Your task to perform on an android device: Open Chrome and go to the settings page Image 0: 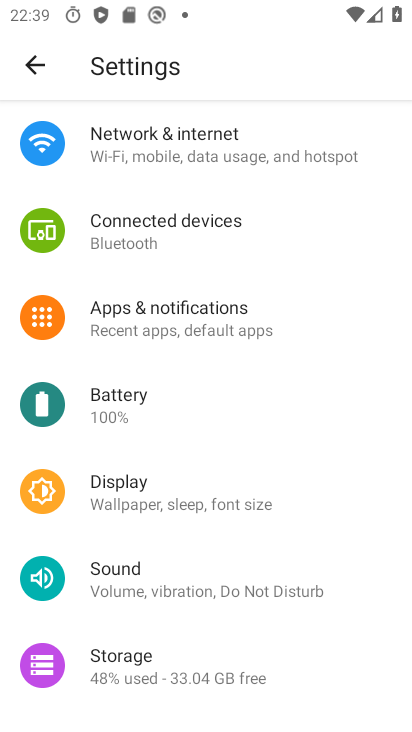
Step 0: press home button
Your task to perform on an android device: Open Chrome and go to the settings page Image 1: 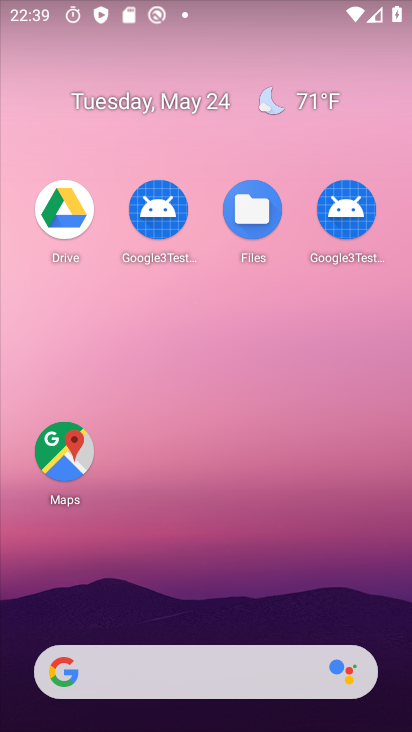
Step 1: click (198, 611)
Your task to perform on an android device: Open Chrome and go to the settings page Image 2: 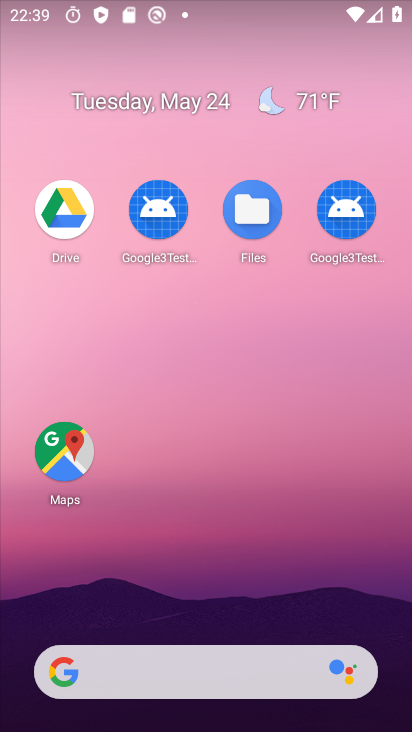
Step 2: drag from (198, 611) to (192, 0)
Your task to perform on an android device: Open Chrome and go to the settings page Image 3: 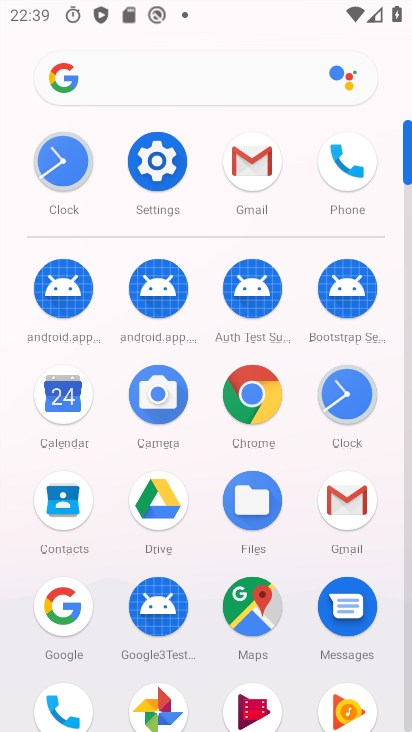
Step 3: click (261, 422)
Your task to perform on an android device: Open Chrome and go to the settings page Image 4: 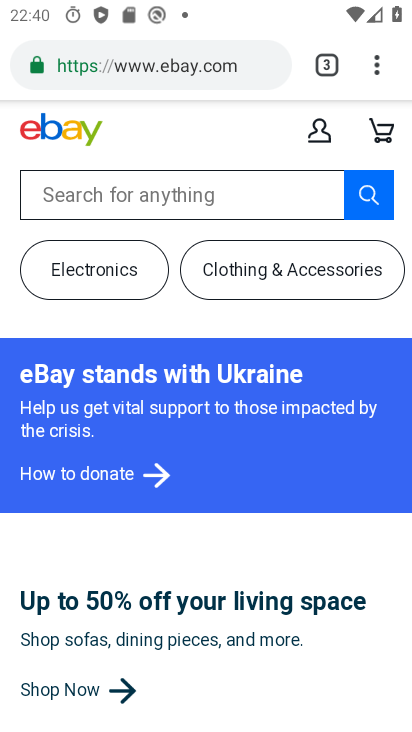
Step 4: click (377, 72)
Your task to perform on an android device: Open Chrome and go to the settings page Image 5: 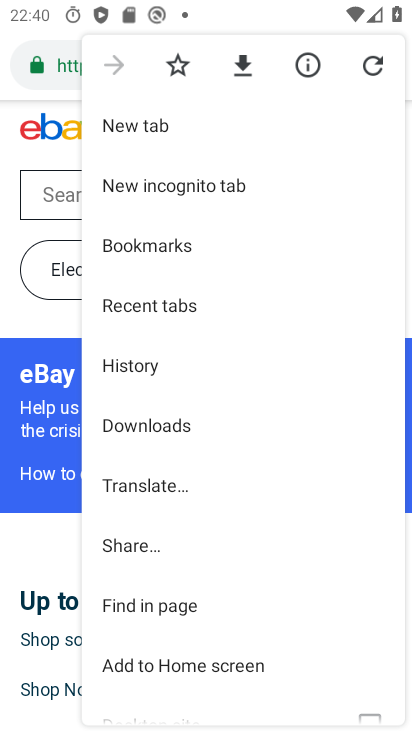
Step 5: drag from (217, 552) to (188, 161)
Your task to perform on an android device: Open Chrome and go to the settings page Image 6: 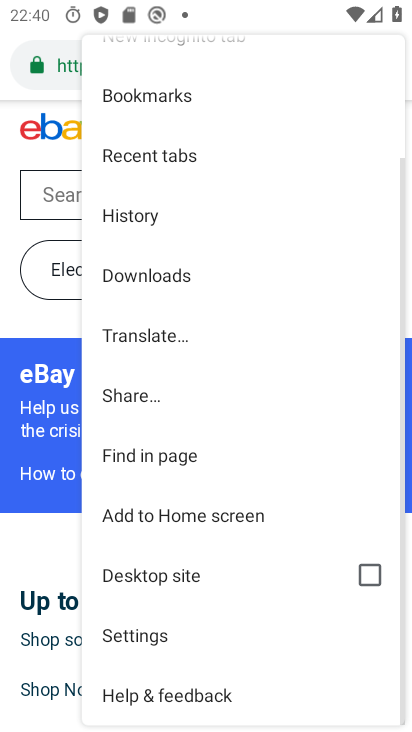
Step 6: click (129, 643)
Your task to perform on an android device: Open Chrome and go to the settings page Image 7: 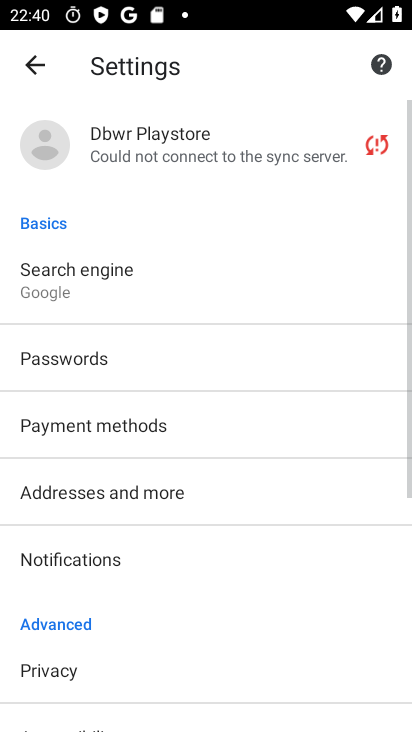
Step 7: task complete